Your task to perform on an android device: Show me popular games on the Play Store Image 0: 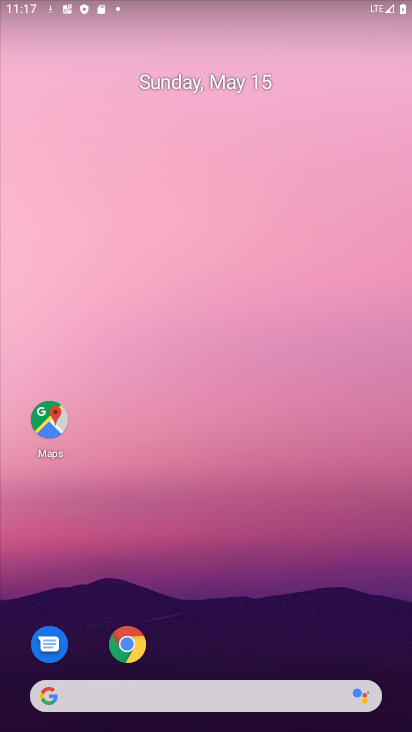
Step 0: drag from (280, 701) to (227, 223)
Your task to perform on an android device: Show me popular games on the Play Store Image 1: 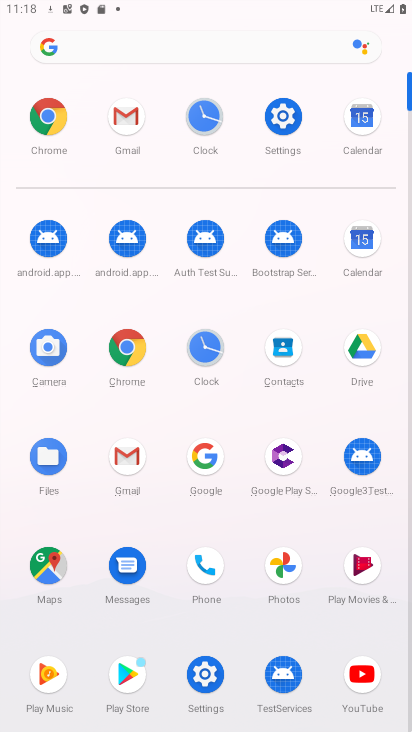
Step 1: click (133, 682)
Your task to perform on an android device: Show me popular games on the Play Store Image 2: 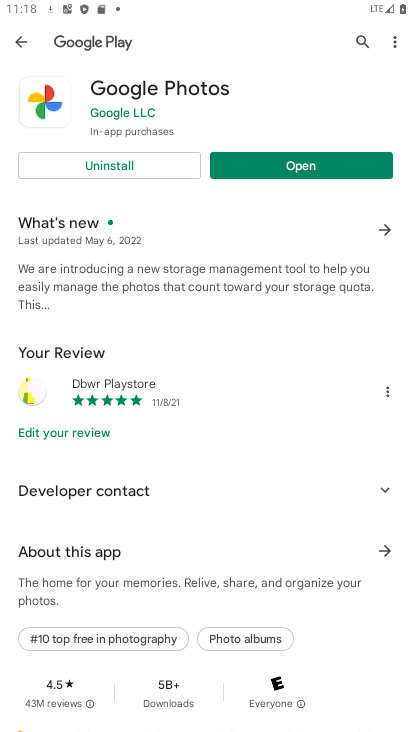
Step 2: click (353, 37)
Your task to perform on an android device: Show me popular games on the Play Store Image 3: 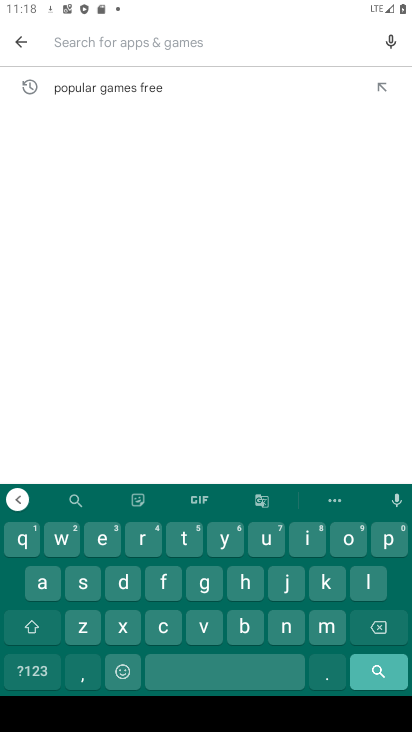
Step 3: click (142, 90)
Your task to perform on an android device: Show me popular games on the Play Store Image 4: 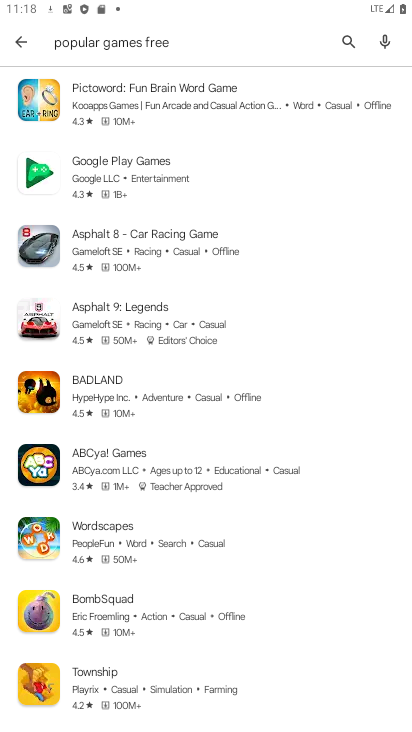
Step 4: task complete